Your task to perform on an android device: Show me popular games on the Play Store Image 0: 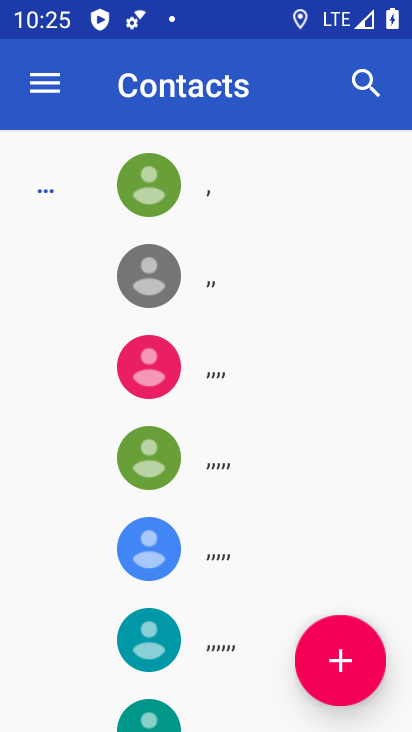
Step 0: press home button
Your task to perform on an android device: Show me popular games on the Play Store Image 1: 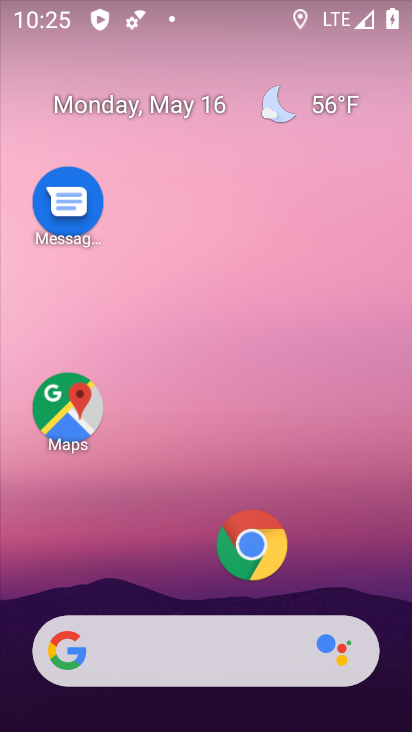
Step 1: drag from (192, 584) to (148, 48)
Your task to perform on an android device: Show me popular games on the Play Store Image 2: 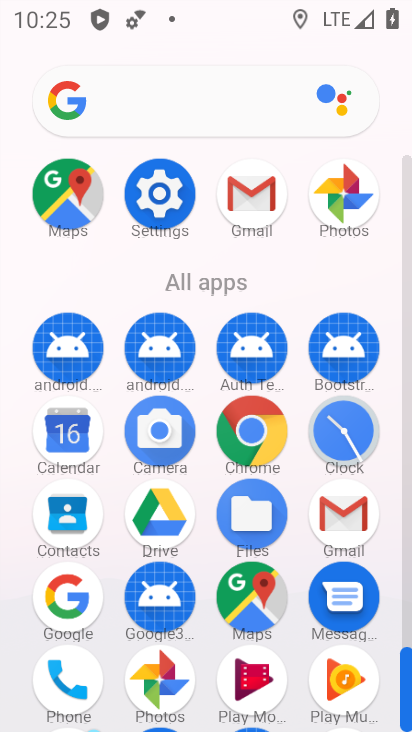
Step 2: drag from (117, 557) to (120, 156)
Your task to perform on an android device: Show me popular games on the Play Store Image 3: 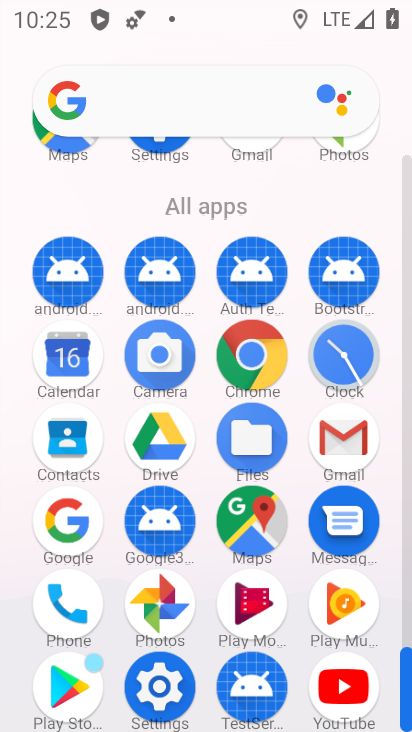
Step 3: click (43, 679)
Your task to perform on an android device: Show me popular games on the Play Store Image 4: 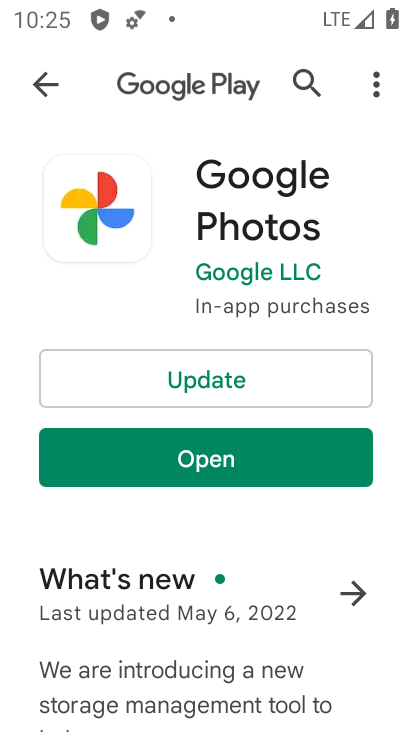
Step 4: click (19, 83)
Your task to perform on an android device: Show me popular games on the Play Store Image 5: 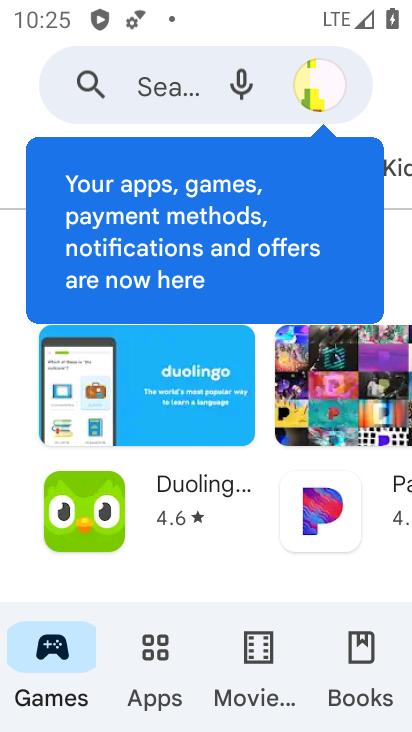
Step 5: drag from (230, 553) to (190, 230)
Your task to perform on an android device: Show me popular games on the Play Store Image 6: 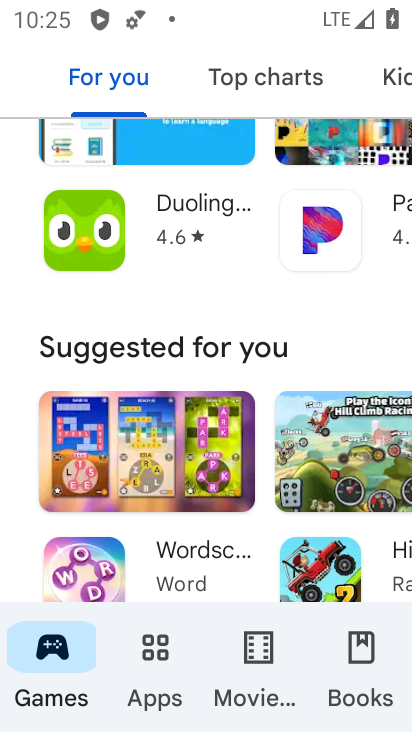
Step 6: drag from (276, 559) to (183, 25)
Your task to perform on an android device: Show me popular games on the Play Store Image 7: 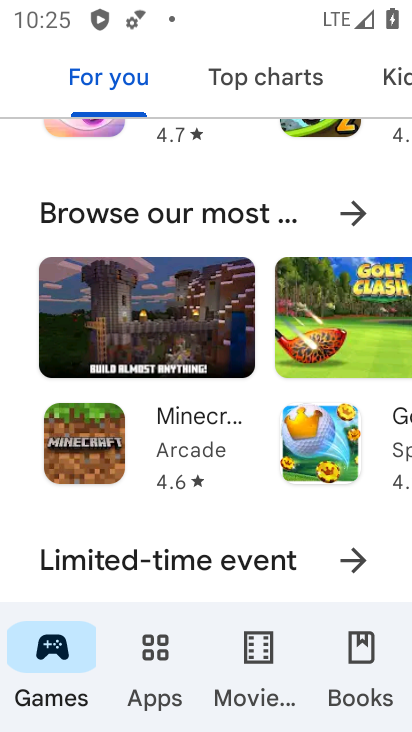
Step 7: drag from (257, 464) to (165, 3)
Your task to perform on an android device: Show me popular games on the Play Store Image 8: 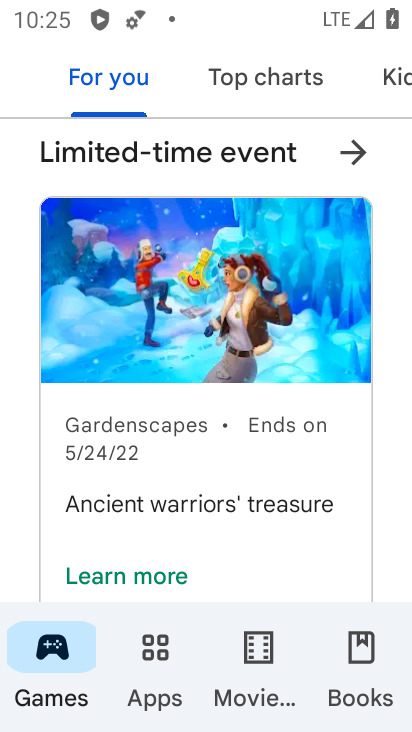
Step 8: drag from (265, 562) to (182, 4)
Your task to perform on an android device: Show me popular games on the Play Store Image 9: 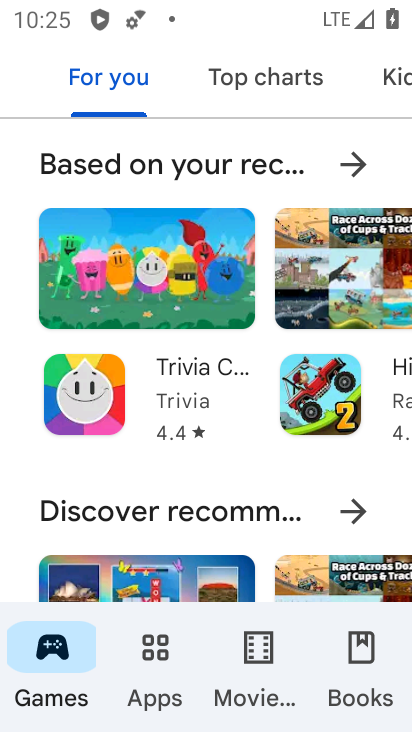
Step 9: drag from (221, 387) to (200, 12)
Your task to perform on an android device: Show me popular games on the Play Store Image 10: 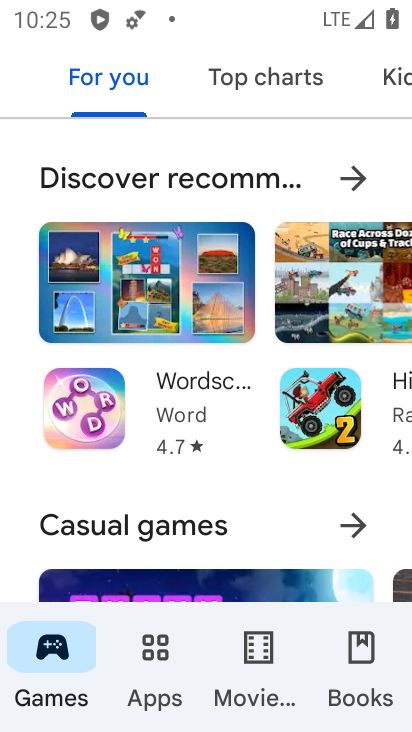
Step 10: drag from (259, 506) to (214, 659)
Your task to perform on an android device: Show me popular games on the Play Store Image 11: 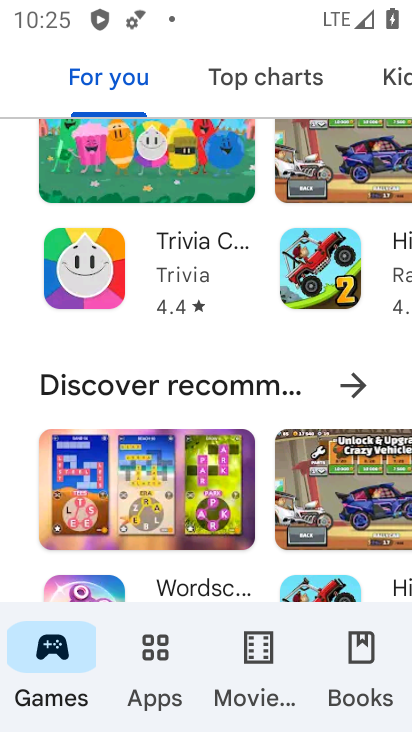
Step 11: drag from (180, 290) to (186, 731)
Your task to perform on an android device: Show me popular games on the Play Store Image 12: 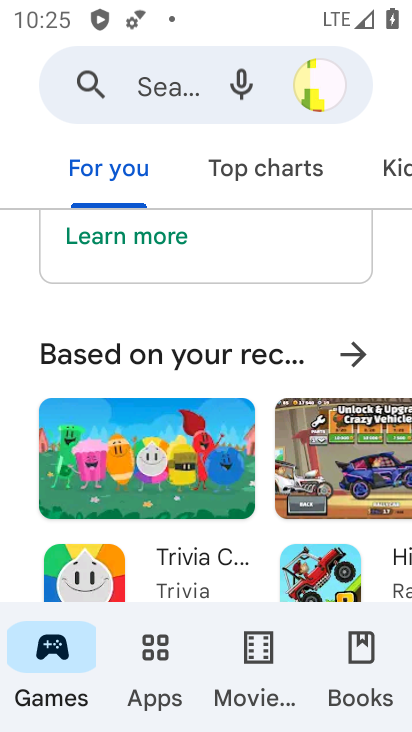
Step 12: drag from (162, 465) to (135, 728)
Your task to perform on an android device: Show me popular games on the Play Store Image 13: 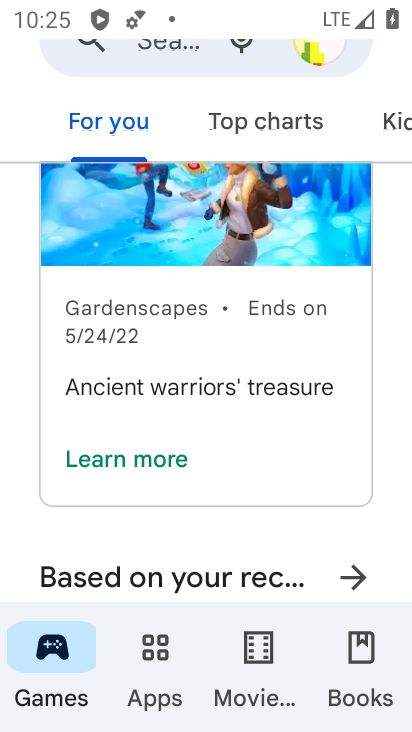
Step 13: drag from (132, 364) to (130, 701)
Your task to perform on an android device: Show me popular games on the Play Store Image 14: 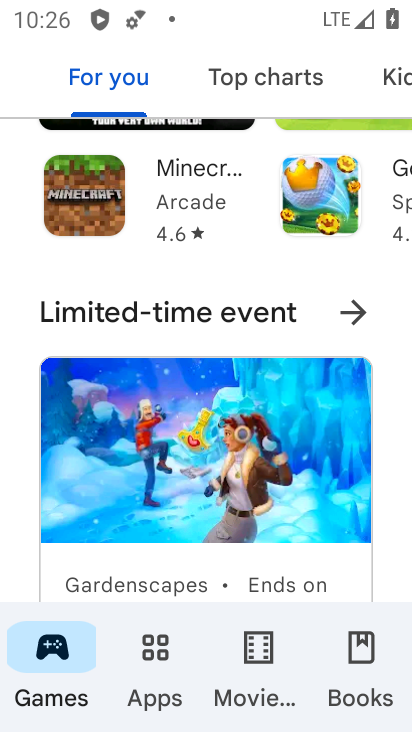
Step 14: drag from (130, 310) to (151, 706)
Your task to perform on an android device: Show me popular games on the Play Store Image 15: 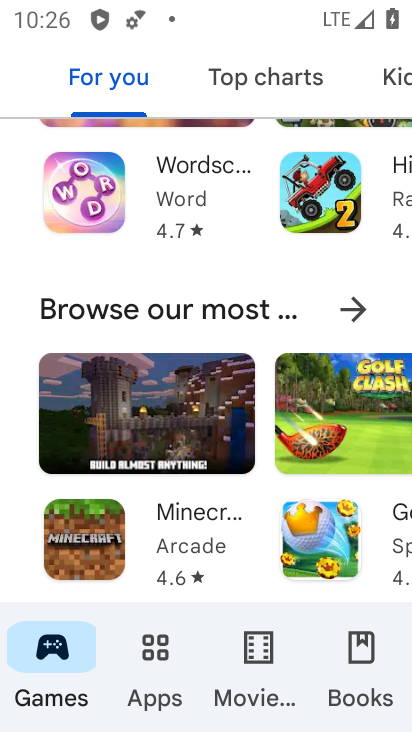
Step 15: drag from (166, 285) to (180, 720)
Your task to perform on an android device: Show me popular games on the Play Store Image 16: 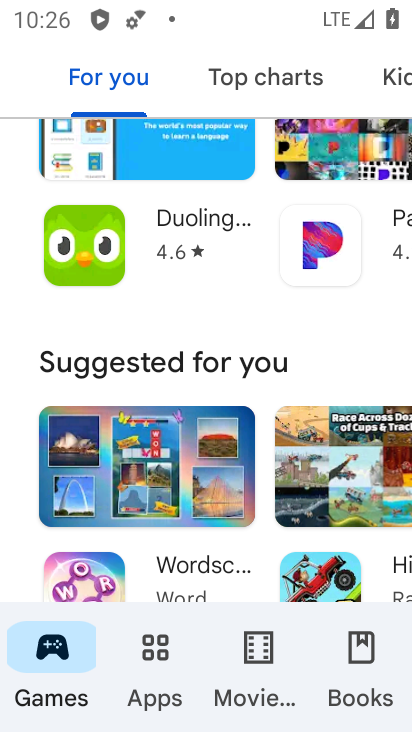
Step 16: drag from (161, 273) to (168, 716)
Your task to perform on an android device: Show me popular games on the Play Store Image 17: 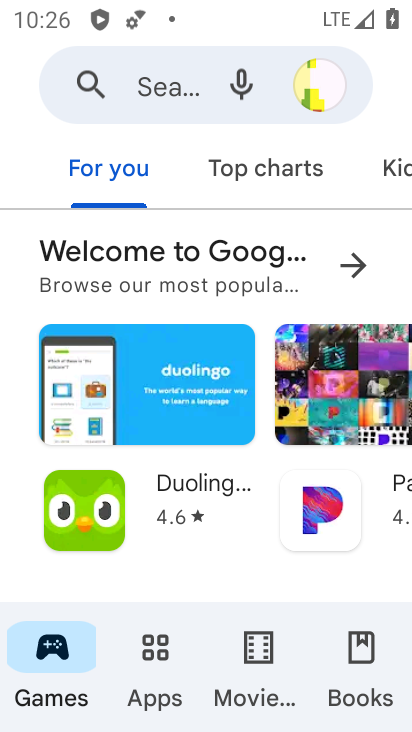
Step 17: click (305, 258)
Your task to perform on an android device: Show me popular games on the Play Store Image 18: 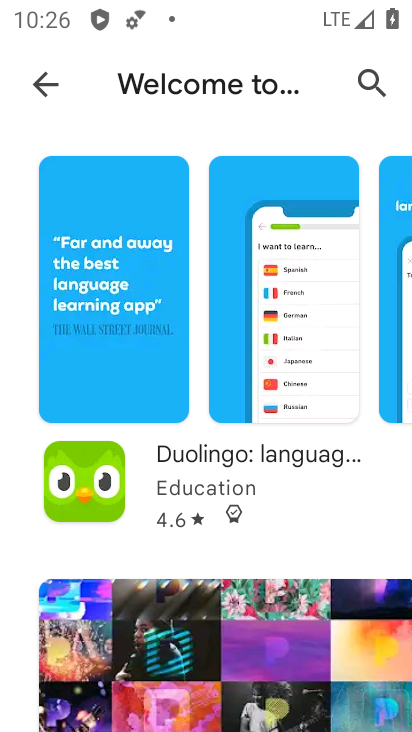
Step 18: task complete